Your task to perform on an android device: Go to sound settings Image 0: 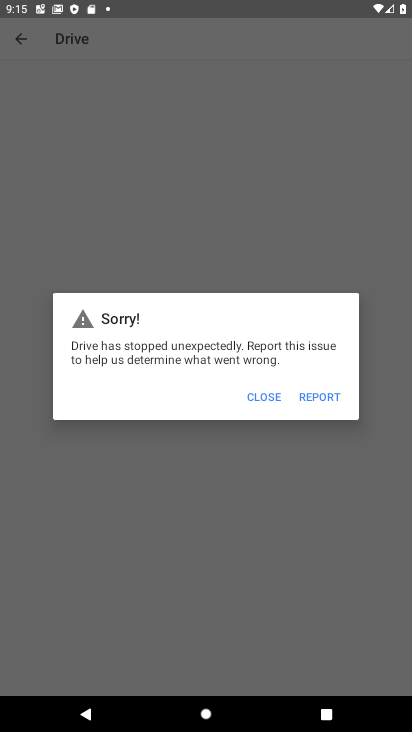
Step 0: press home button
Your task to perform on an android device: Go to sound settings Image 1: 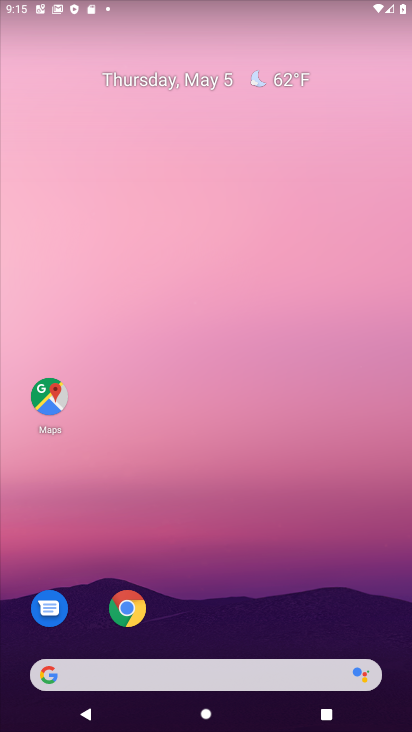
Step 1: drag from (199, 601) to (152, 1)
Your task to perform on an android device: Go to sound settings Image 2: 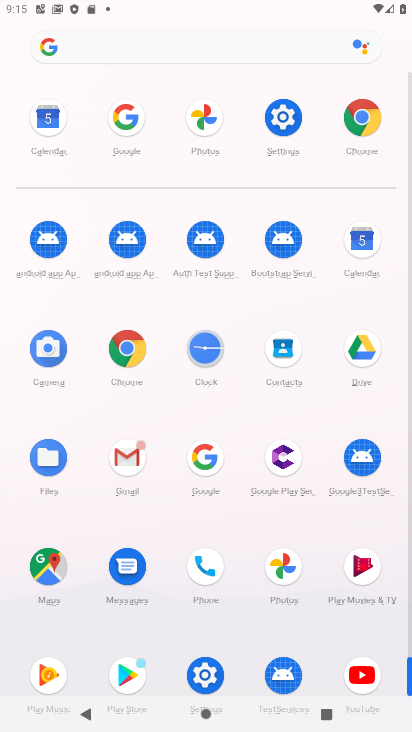
Step 2: drag from (6, 549) to (5, 203)
Your task to perform on an android device: Go to sound settings Image 3: 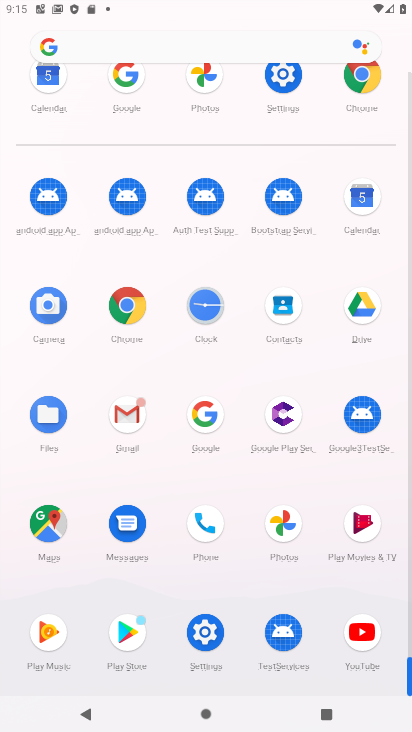
Step 3: click (204, 628)
Your task to perform on an android device: Go to sound settings Image 4: 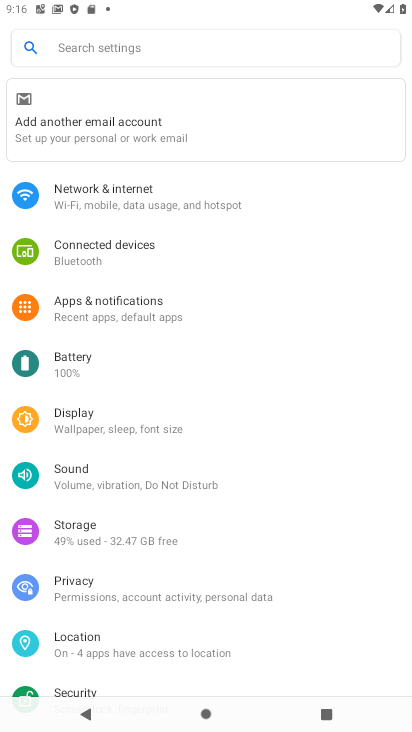
Step 4: drag from (283, 512) to (265, 96)
Your task to perform on an android device: Go to sound settings Image 5: 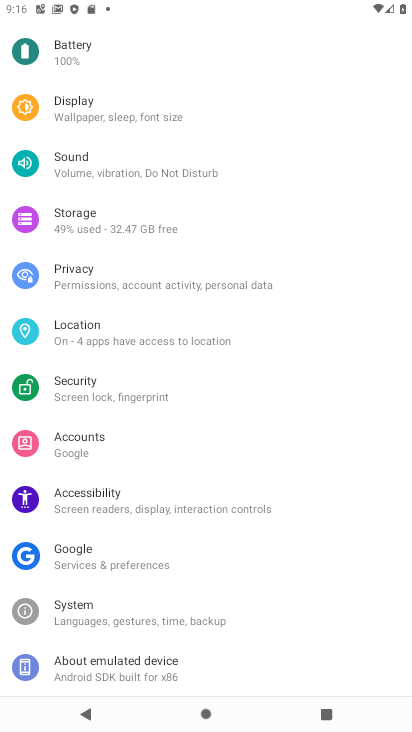
Step 5: drag from (230, 217) to (227, 587)
Your task to perform on an android device: Go to sound settings Image 6: 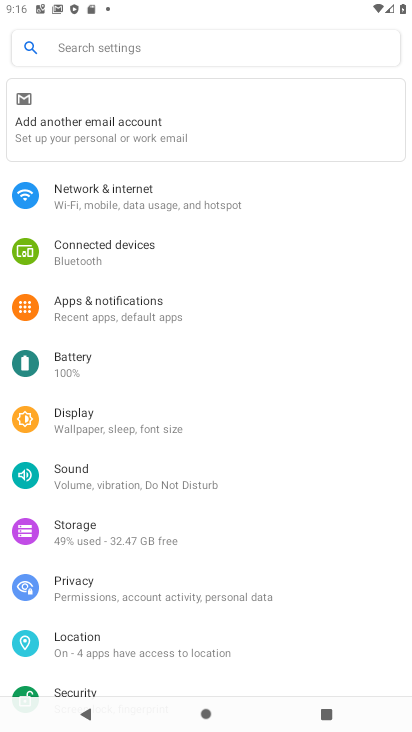
Step 6: click (115, 489)
Your task to perform on an android device: Go to sound settings Image 7: 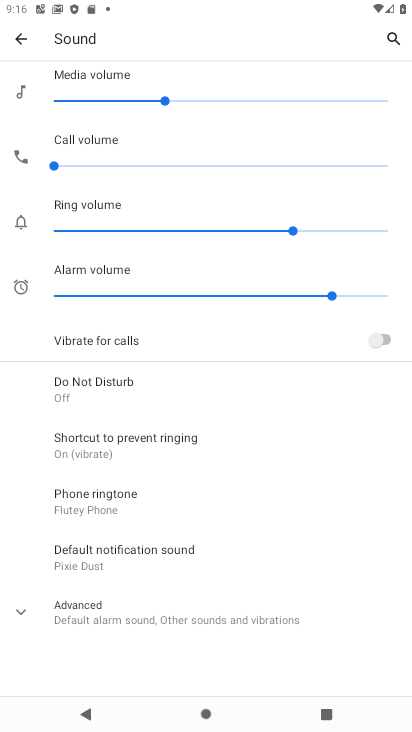
Step 7: click (13, 615)
Your task to perform on an android device: Go to sound settings Image 8: 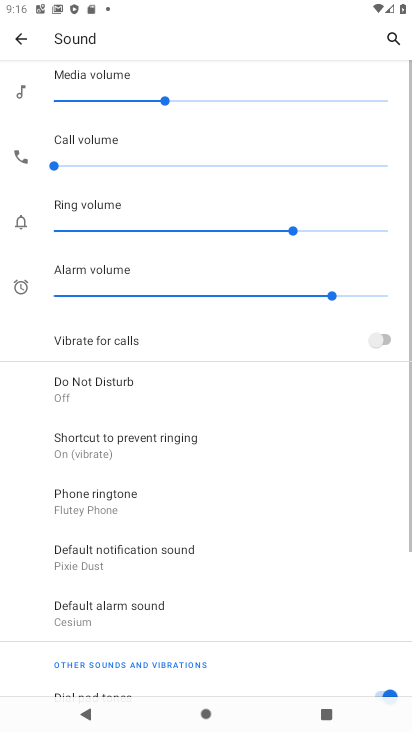
Step 8: task complete